Your task to perform on an android device: clear all cookies in the chrome app Image 0: 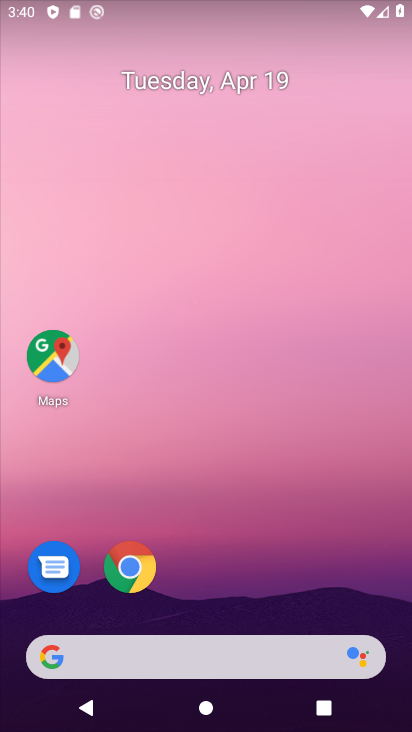
Step 0: click (127, 573)
Your task to perform on an android device: clear all cookies in the chrome app Image 1: 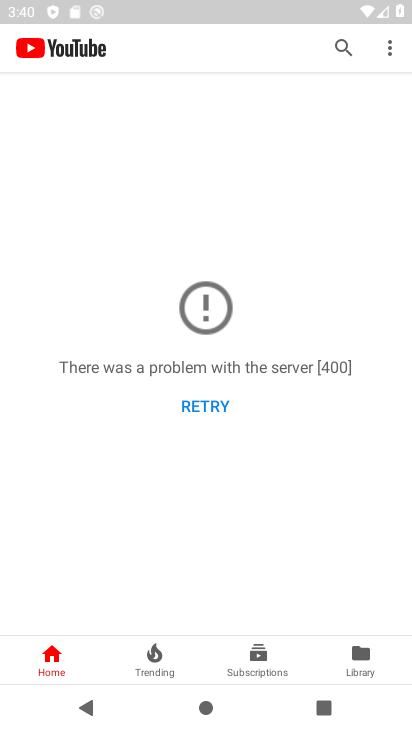
Step 1: press back button
Your task to perform on an android device: clear all cookies in the chrome app Image 2: 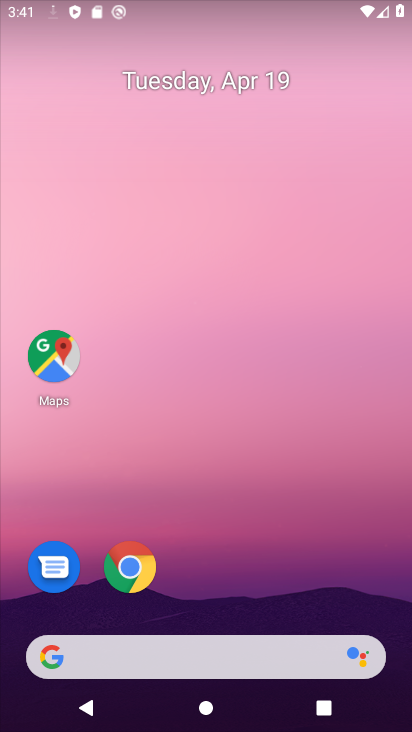
Step 2: click (121, 584)
Your task to perform on an android device: clear all cookies in the chrome app Image 3: 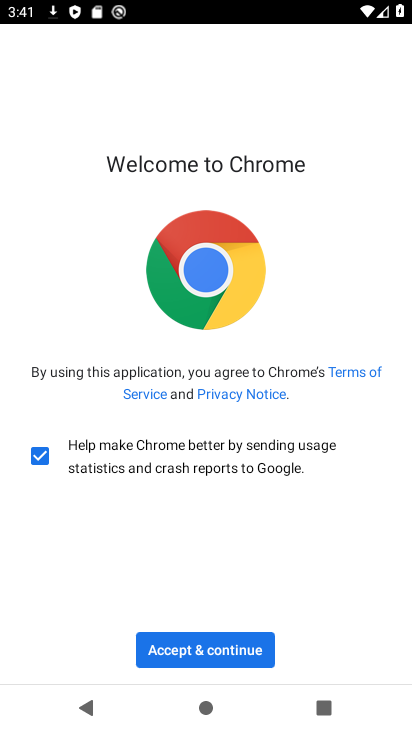
Step 3: click (235, 649)
Your task to perform on an android device: clear all cookies in the chrome app Image 4: 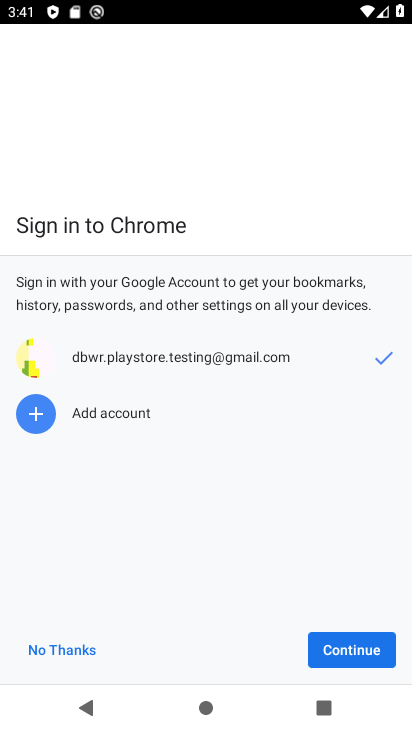
Step 4: click (367, 661)
Your task to perform on an android device: clear all cookies in the chrome app Image 5: 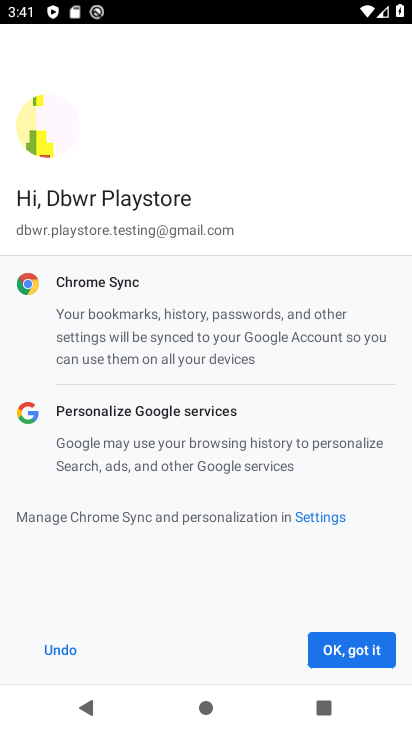
Step 5: click (368, 661)
Your task to perform on an android device: clear all cookies in the chrome app Image 6: 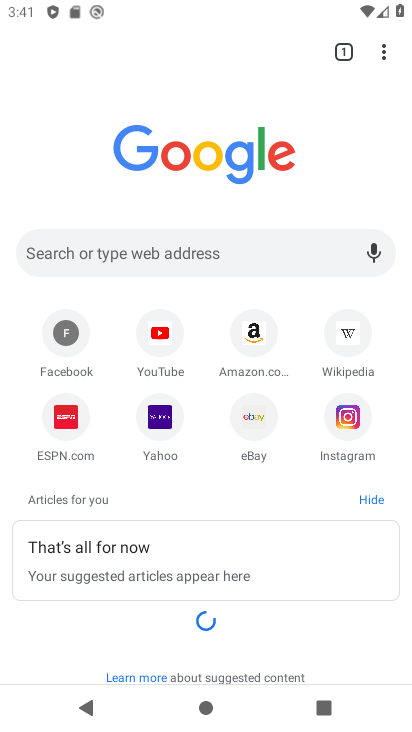
Step 6: click (386, 49)
Your task to perform on an android device: clear all cookies in the chrome app Image 7: 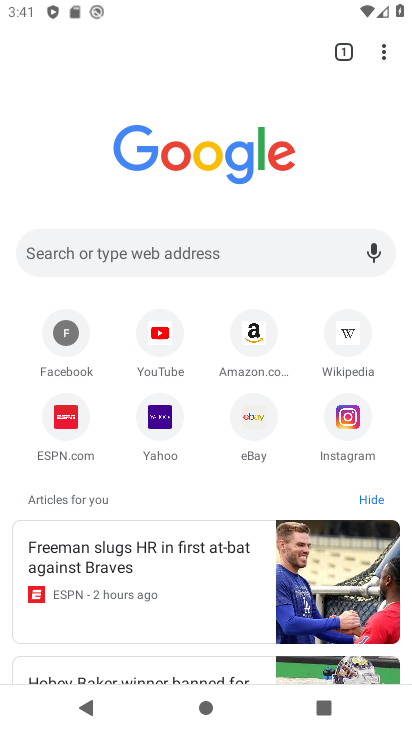
Step 7: click (384, 51)
Your task to perform on an android device: clear all cookies in the chrome app Image 8: 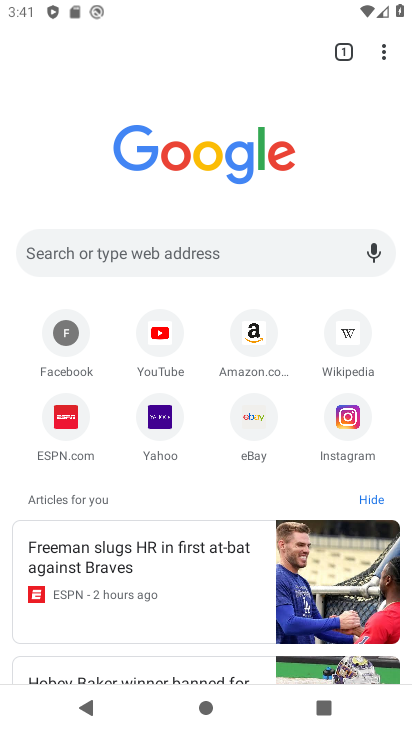
Step 8: drag from (384, 51) to (285, 429)
Your task to perform on an android device: clear all cookies in the chrome app Image 9: 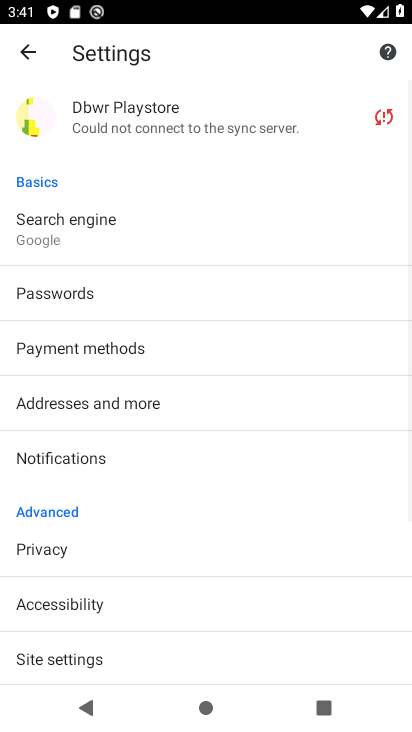
Step 9: click (164, 546)
Your task to perform on an android device: clear all cookies in the chrome app Image 10: 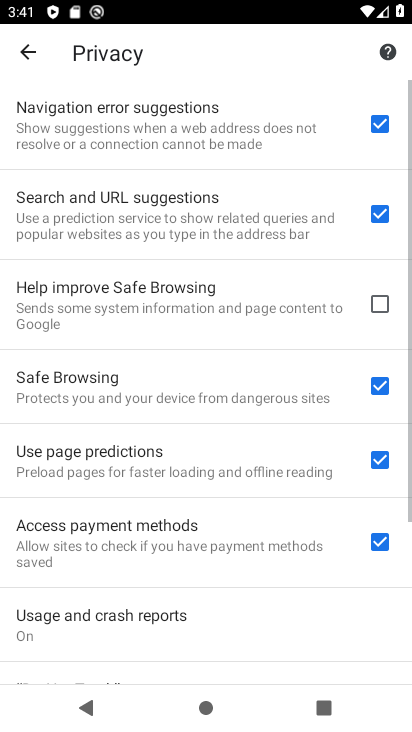
Step 10: drag from (227, 556) to (374, 170)
Your task to perform on an android device: clear all cookies in the chrome app Image 11: 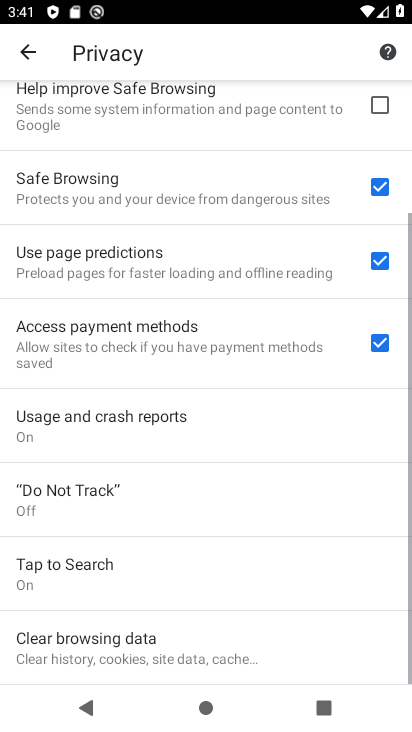
Step 11: click (179, 647)
Your task to perform on an android device: clear all cookies in the chrome app Image 12: 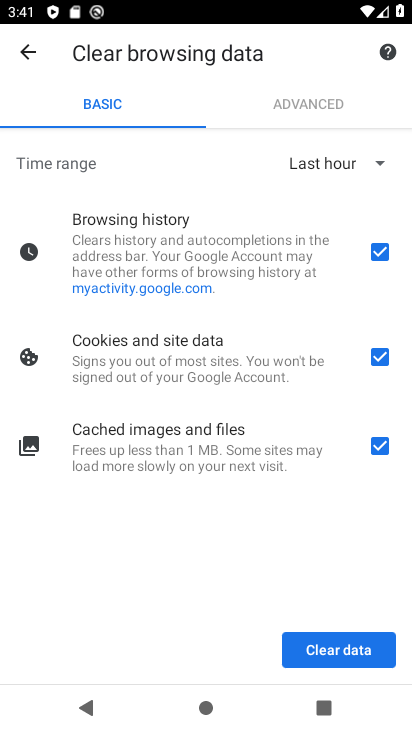
Step 12: click (384, 241)
Your task to perform on an android device: clear all cookies in the chrome app Image 13: 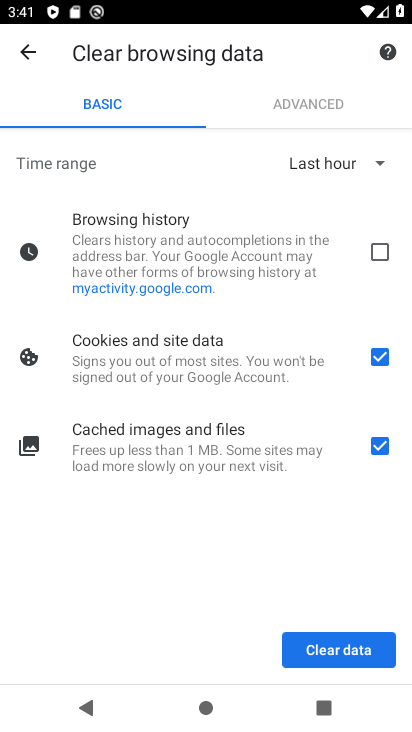
Step 13: click (384, 448)
Your task to perform on an android device: clear all cookies in the chrome app Image 14: 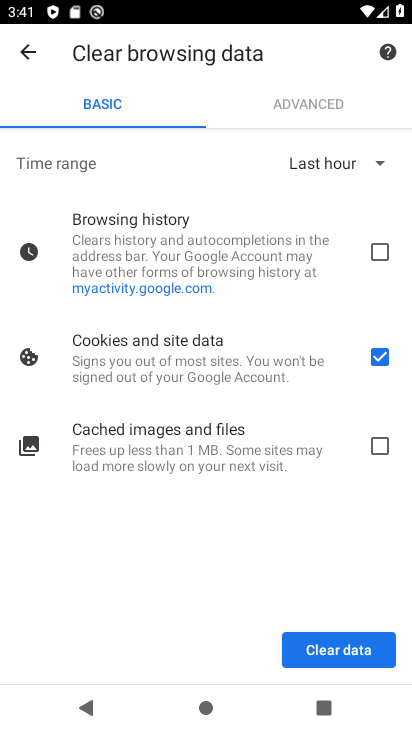
Step 14: click (359, 629)
Your task to perform on an android device: clear all cookies in the chrome app Image 15: 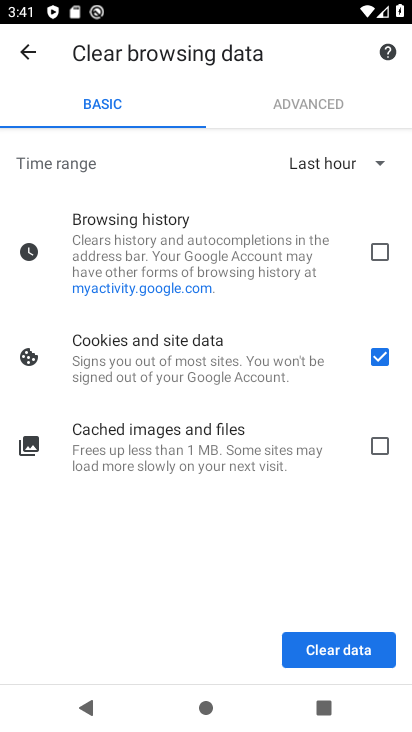
Step 15: click (348, 645)
Your task to perform on an android device: clear all cookies in the chrome app Image 16: 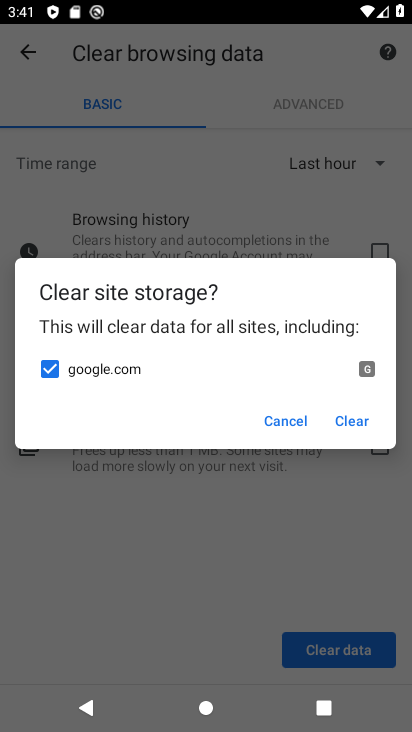
Step 16: click (360, 423)
Your task to perform on an android device: clear all cookies in the chrome app Image 17: 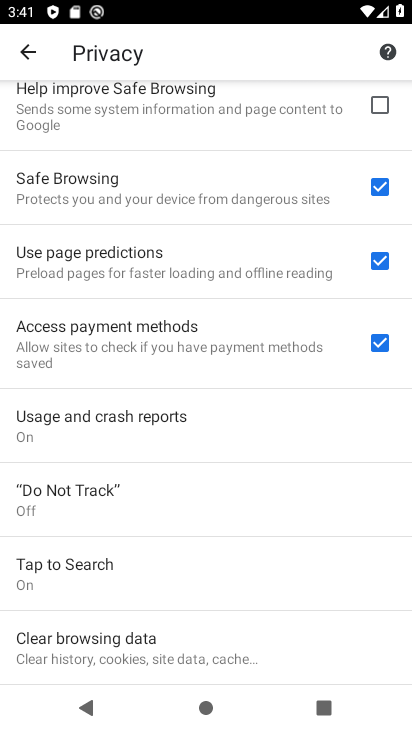
Step 17: task complete